Your task to perform on an android device: When is my next appointment? Image 0: 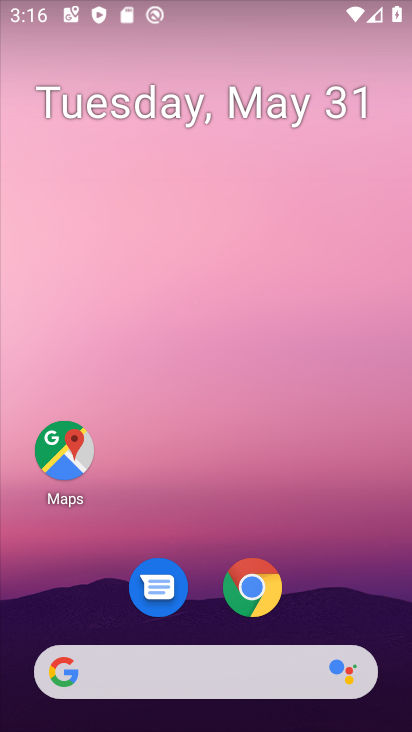
Step 0: drag from (312, 608) to (281, 90)
Your task to perform on an android device: When is my next appointment? Image 1: 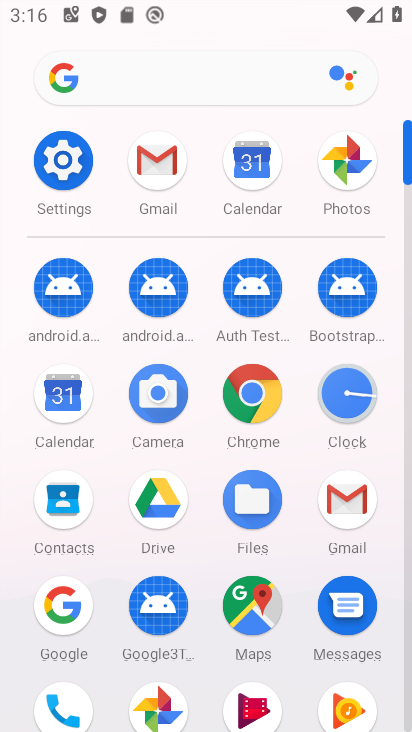
Step 1: click (71, 405)
Your task to perform on an android device: When is my next appointment? Image 2: 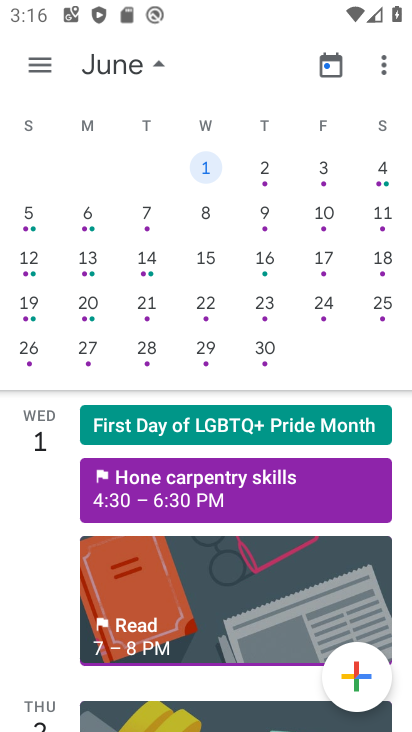
Step 2: drag from (83, 342) to (398, 289)
Your task to perform on an android device: When is my next appointment? Image 3: 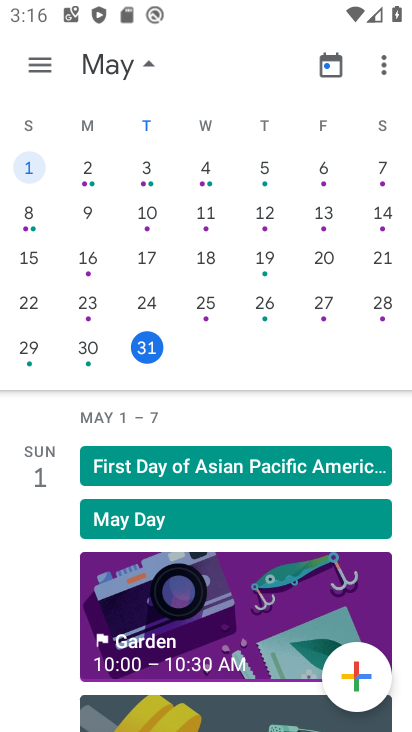
Step 3: click (135, 343)
Your task to perform on an android device: When is my next appointment? Image 4: 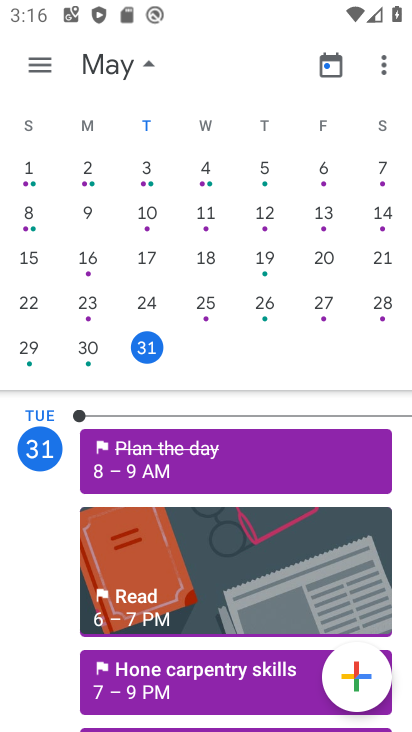
Step 4: task complete